Your task to perform on an android device: Is it going to rain this weekend? Image 0: 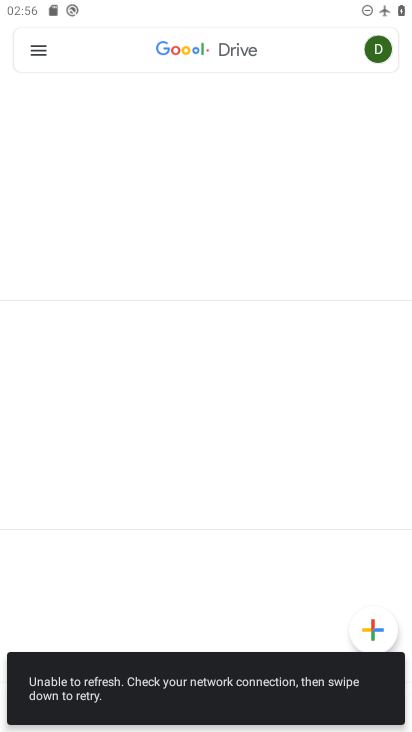
Step 0: press home button
Your task to perform on an android device: Is it going to rain this weekend? Image 1: 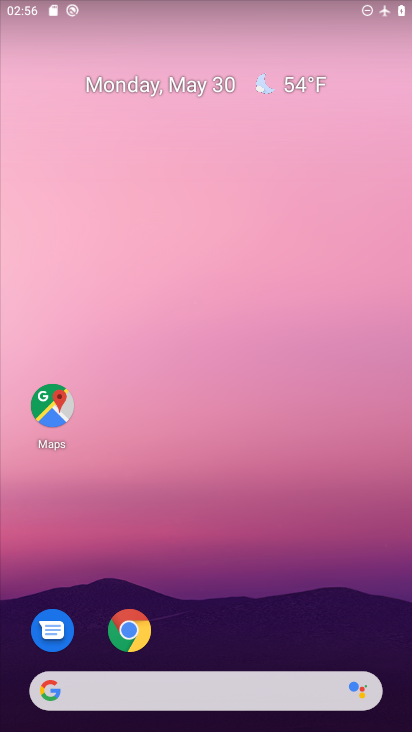
Step 1: click (292, 85)
Your task to perform on an android device: Is it going to rain this weekend? Image 2: 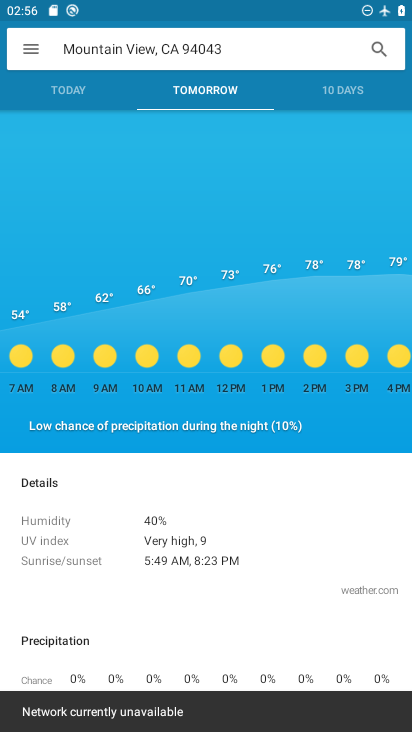
Step 2: click (281, 86)
Your task to perform on an android device: Is it going to rain this weekend? Image 3: 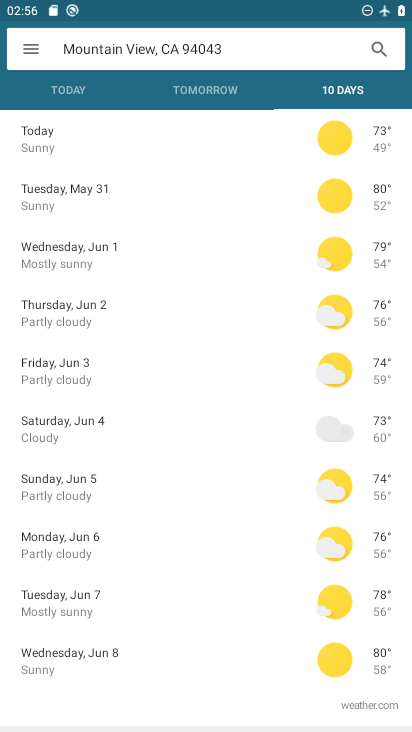
Step 3: click (46, 441)
Your task to perform on an android device: Is it going to rain this weekend? Image 4: 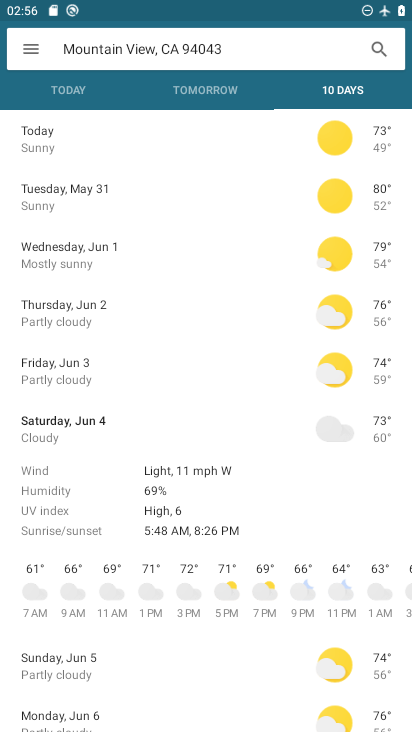
Step 4: task complete